Your task to perform on an android device: toggle improve location accuracy Image 0: 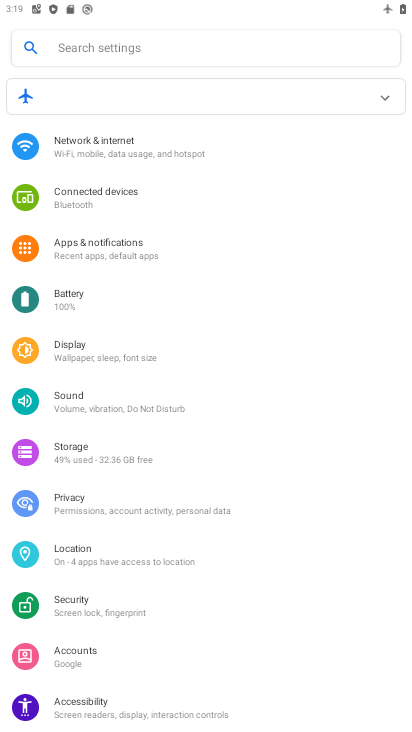
Step 0: click (90, 549)
Your task to perform on an android device: toggle improve location accuracy Image 1: 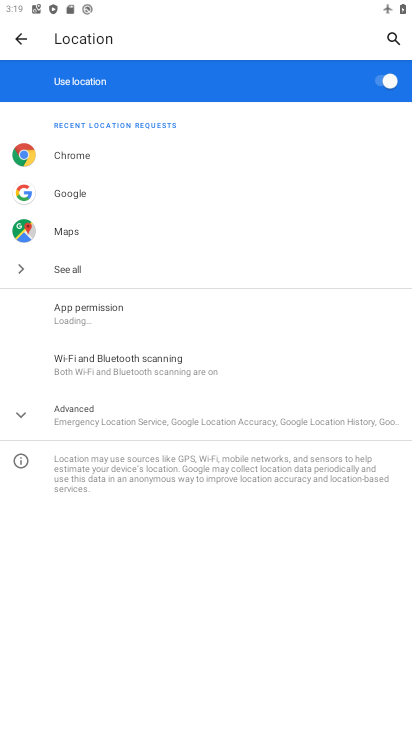
Step 1: click (94, 414)
Your task to perform on an android device: toggle improve location accuracy Image 2: 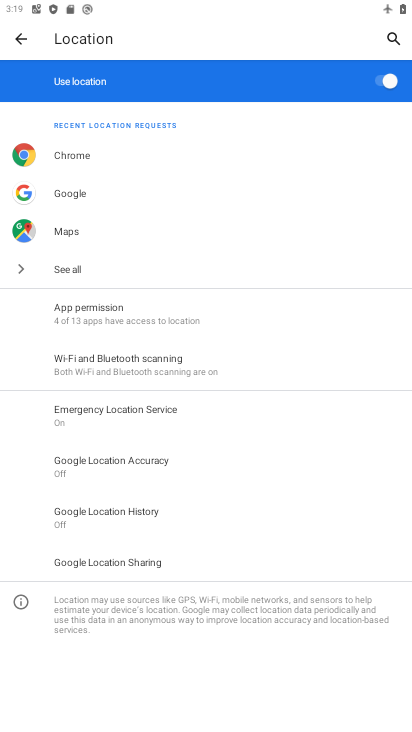
Step 2: click (116, 459)
Your task to perform on an android device: toggle improve location accuracy Image 3: 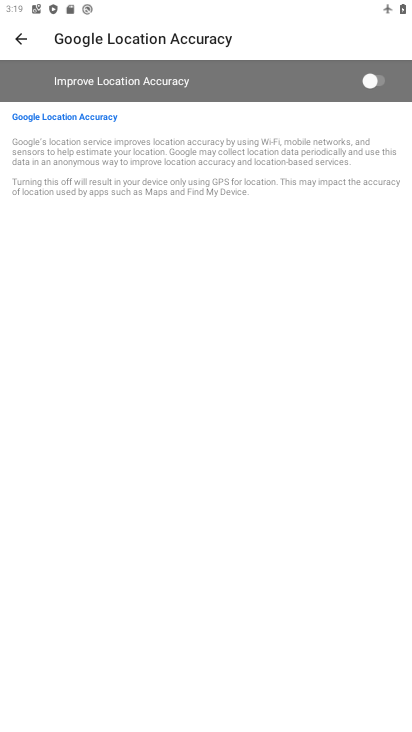
Step 3: click (362, 75)
Your task to perform on an android device: toggle improve location accuracy Image 4: 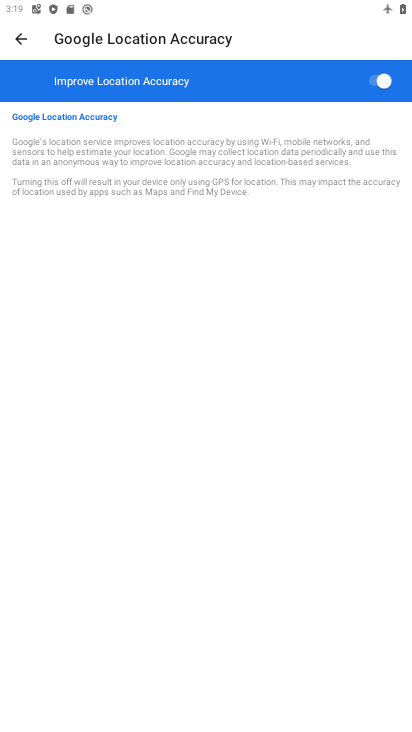
Step 4: task complete